Your task to perform on an android device: turn on location history Image 0: 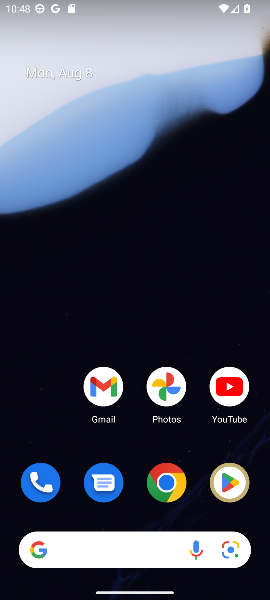
Step 0: drag from (72, 444) to (138, 8)
Your task to perform on an android device: turn on location history Image 1: 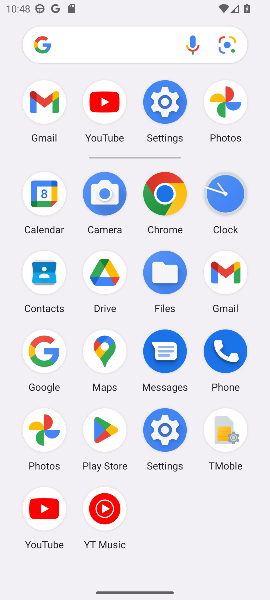
Step 1: click (155, 422)
Your task to perform on an android device: turn on location history Image 2: 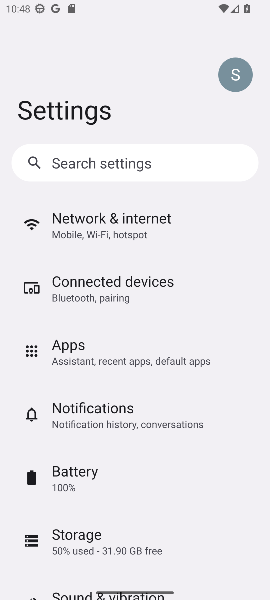
Step 2: drag from (110, 503) to (113, 105)
Your task to perform on an android device: turn on location history Image 3: 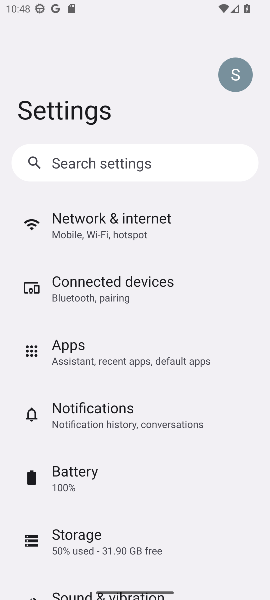
Step 3: drag from (145, 458) to (145, 116)
Your task to perform on an android device: turn on location history Image 4: 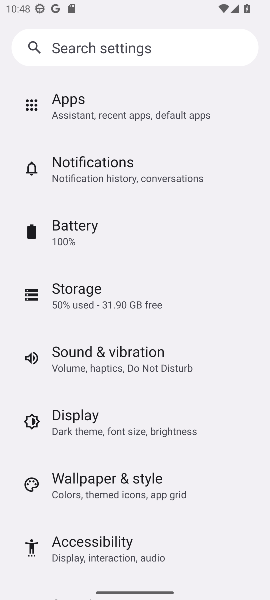
Step 4: drag from (111, 482) to (135, 108)
Your task to perform on an android device: turn on location history Image 5: 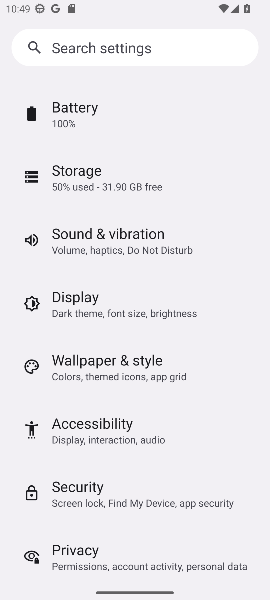
Step 5: drag from (132, 398) to (152, 7)
Your task to perform on an android device: turn on location history Image 6: 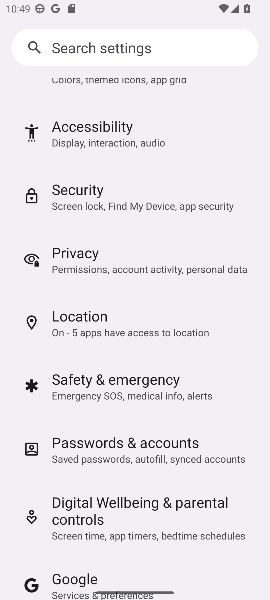
Step 6: click (98, 331)
Your task to perform on an android device: turn on location history Image 7: 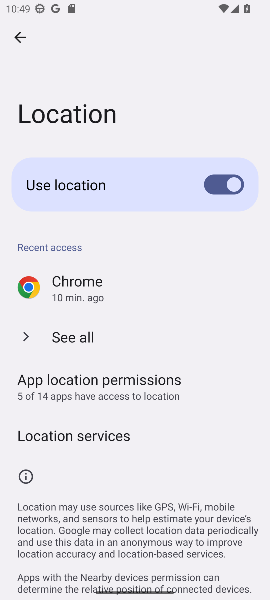
Step 7: click (61, 434)
Your task to perform on an android device: turn on location history Image 8: 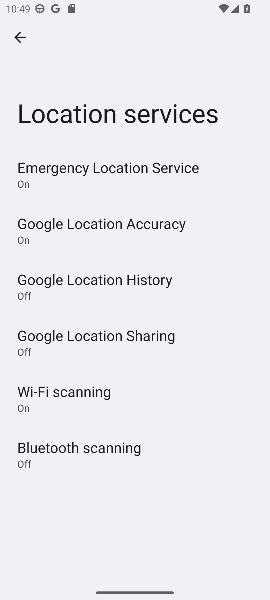
Step 8: click (131, 285)
Your task to perform on an android device: turn on location history Image 9: 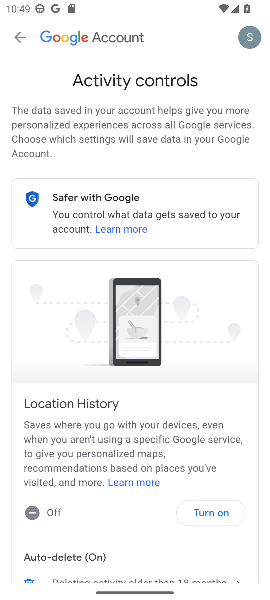
Step 9: click (201, 513)
Your task to perform on an android device: turn on location history Image 10: 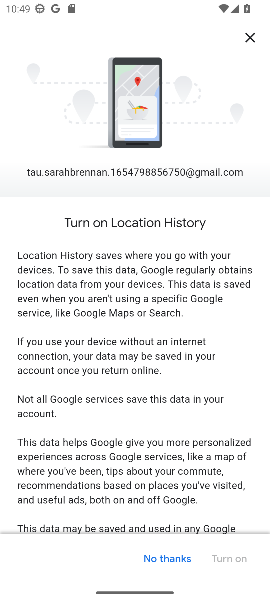
Step 10: drag from (200, 511) to (200, 194)
Your task to perform on an android device: turn on location history Image 11: 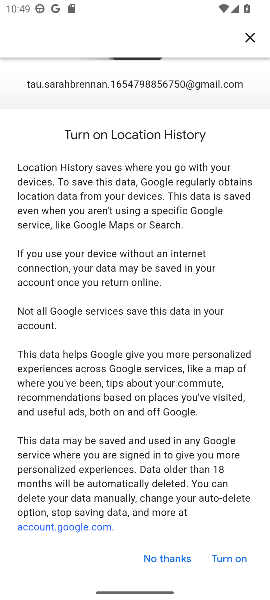
Step 11: click (216, 559)
Your task to perform on an android device: turn on location history Image 12: 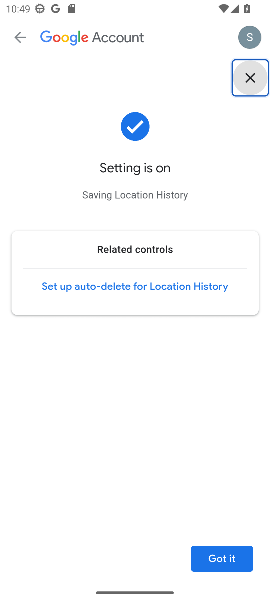
Step 12: task complete